Your task to perform on an android device: set the timer Image 0: 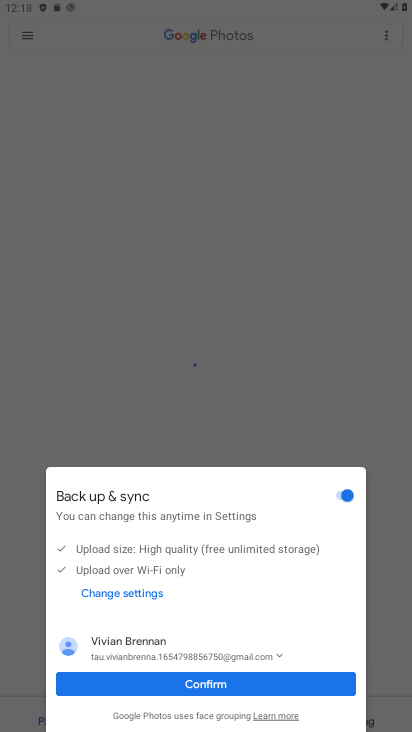
Step 0: press home button
Your task to perform on an android device: set the timer Image 1: 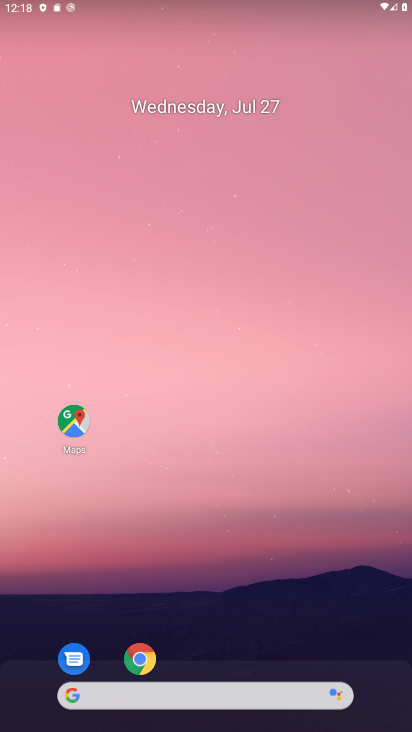
Step 1: drag from (252, 645) to (223, 203)
Your task to perform on an android device: set the timer Image 2: 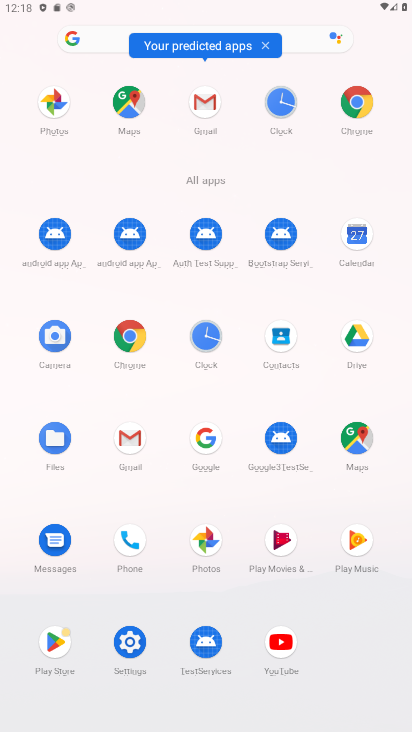
Step 2: click (267, 114)
Your task to perform on an android device: set the timer Image 3: 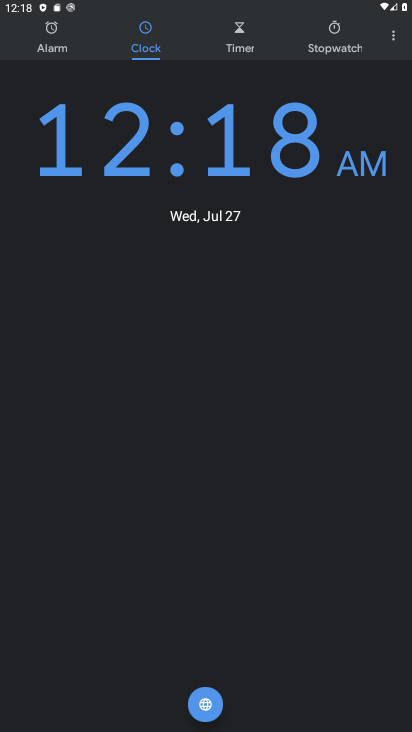
Step 3: click (235, 37)
Your task to perform on an android device: set the timer Image 4: 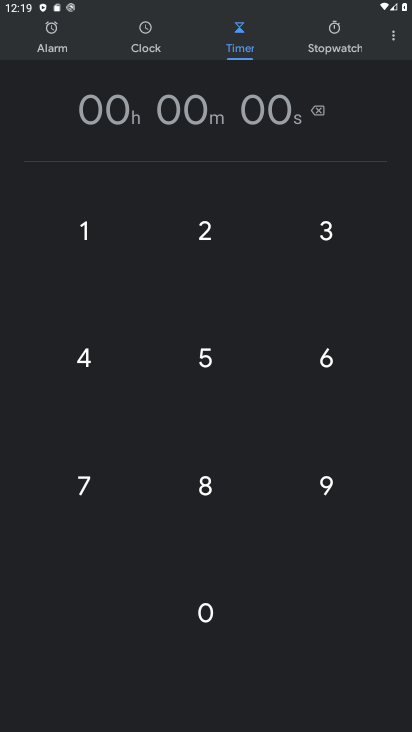
Step 4: type "11"
Your task to perform on an android device: set the timer Image 5: 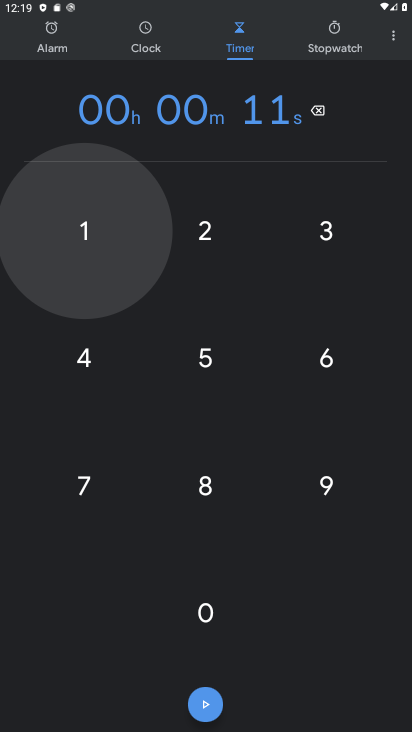
Step 5: task complete